Your task to perform on an android device: turn off sleep mode Image 0: 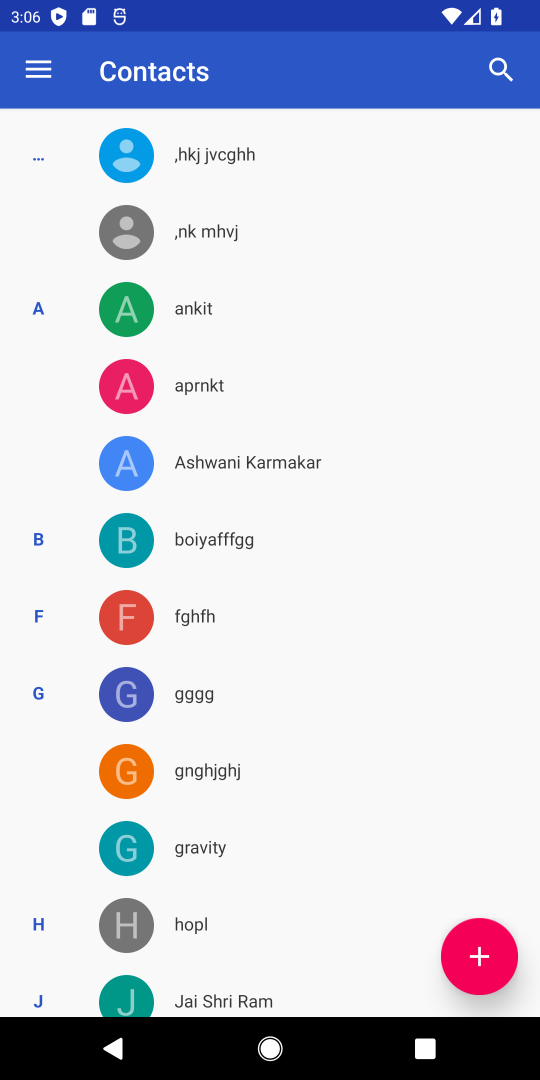
Step 0: press home button
Your task to perform on an android device: turn off sleep mode Image 1: 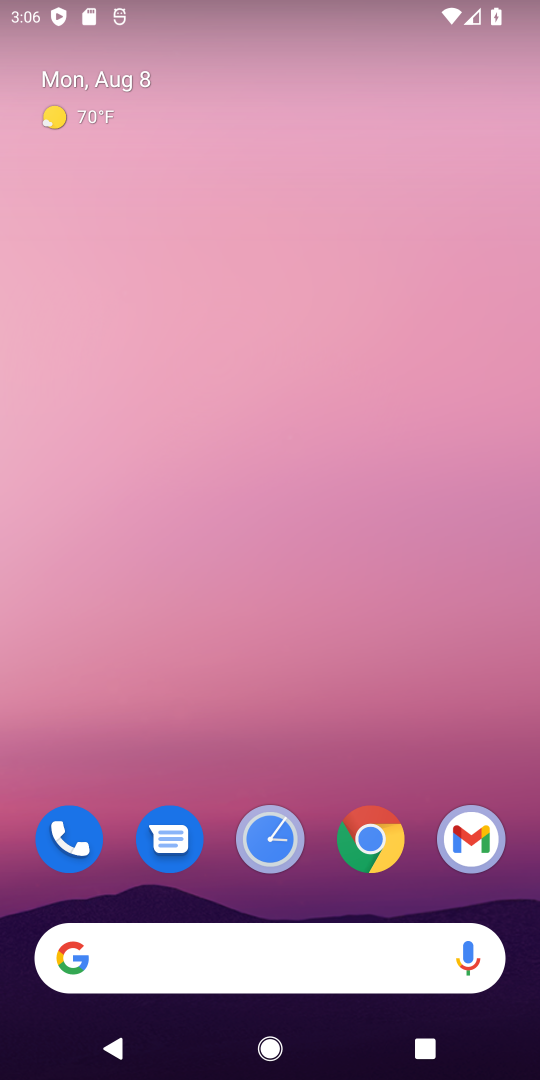
Step 1: drag from (426, 757) to (448, 229)
Your task to perform on an android device: turn off sleep mode Image 2: 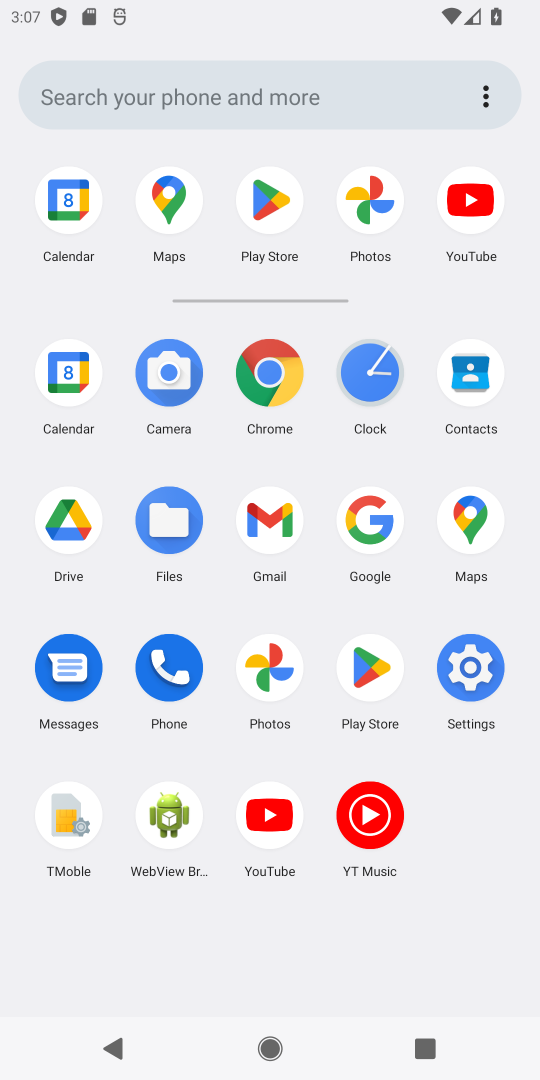
Step 2: click (470, 672)
Your task to perform on an android device: turn off sleep mode Image 3: 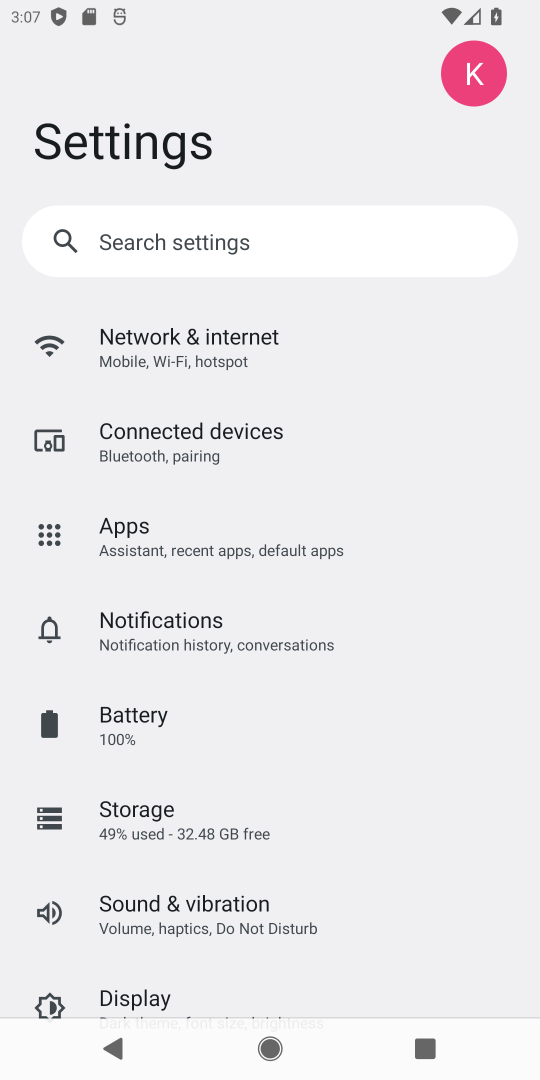
Step 3: drag from (444, 763) to (445, 591)
Your task to perform on an android device: turn off sleep mode Image 4: 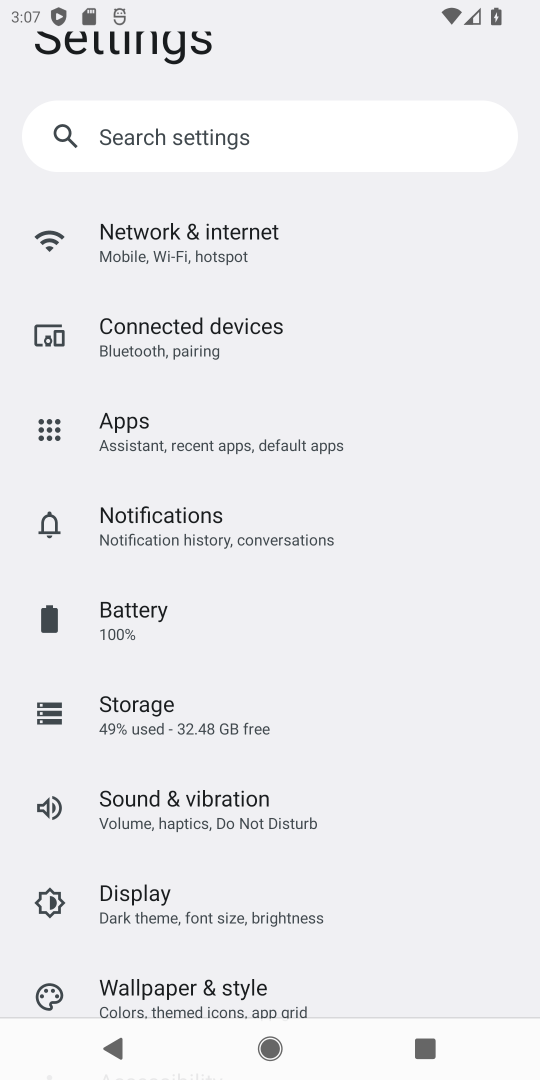
Step 4: drag from (424, 740) to (425, 560)
Your task to perform on an android device: turn off sleep mode Image 5: 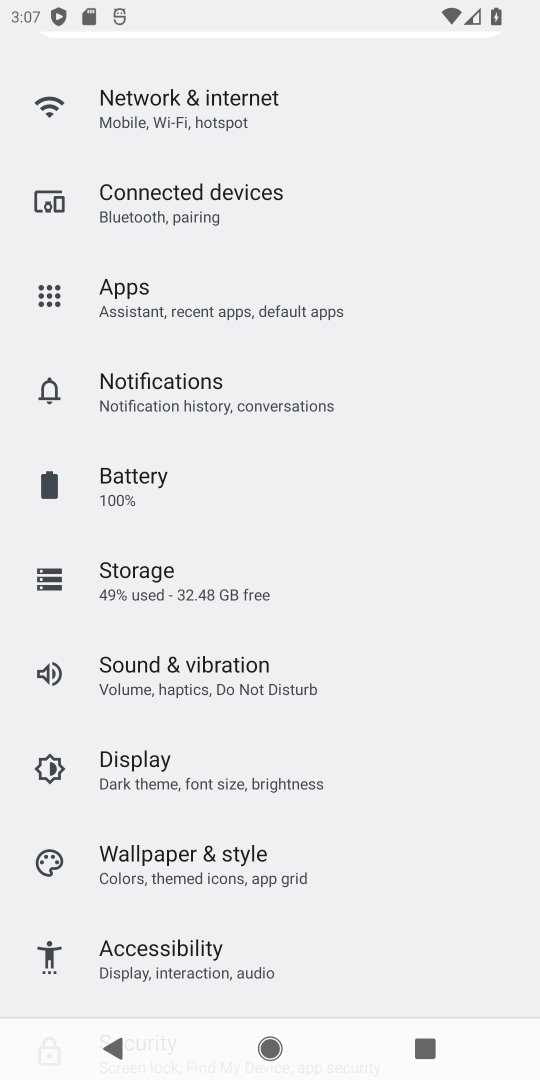
Step 5: drag from (445, 792) to (435, 528)
Your task to perform on an android device: turn off sleep mode Image 6: 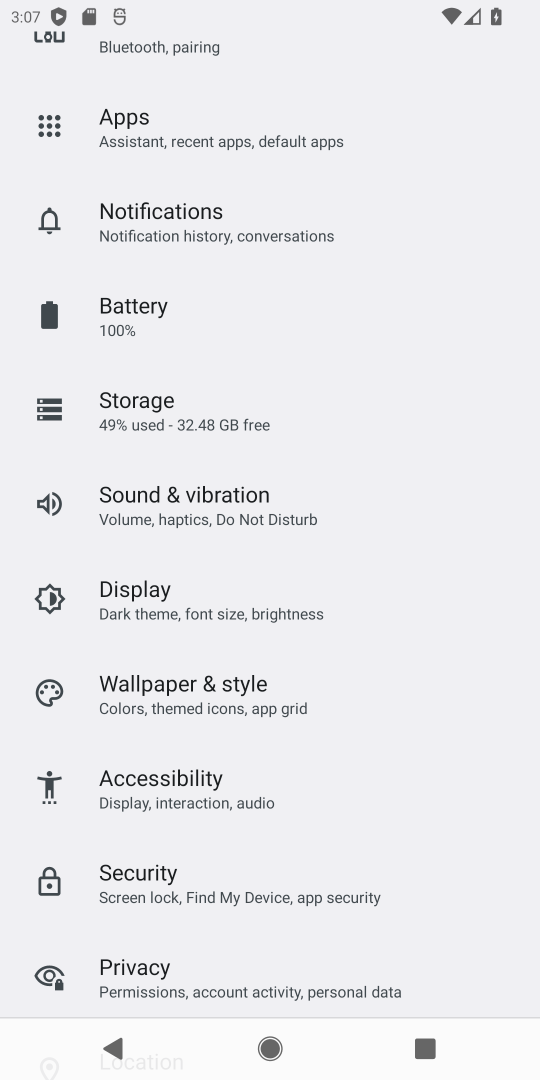
Step 6: drag from (406, 742) to (407, 545)
Your task to perform on an android device: turn off sleep mode Image 7: 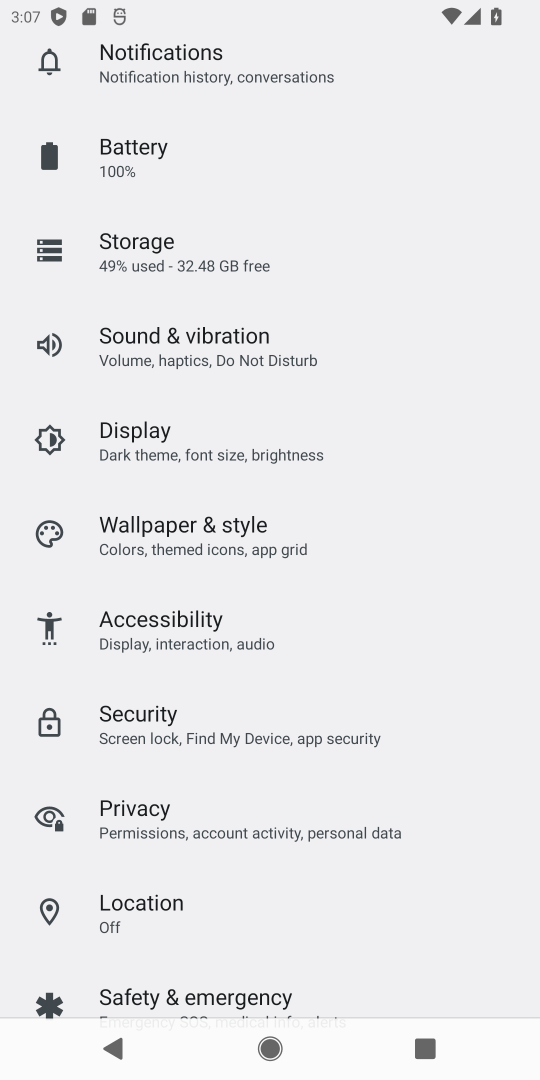
Step 7: click (373, 444)
Your task to perform on an android device: turn off sleep mode Image 8: 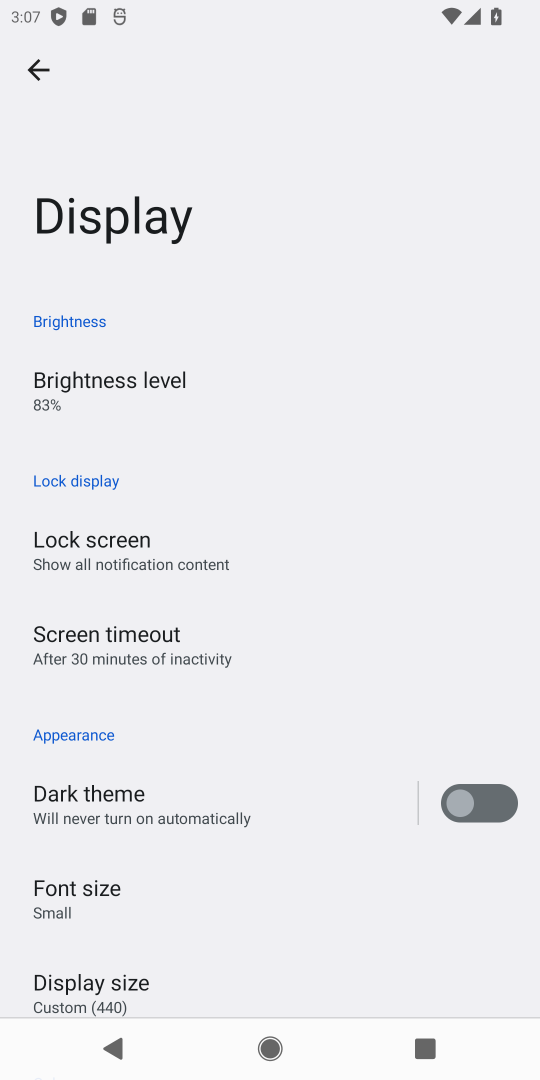
Step 8: task complete